Your task to perform on an android device: move an email to a new category in the gmail app Image 0: 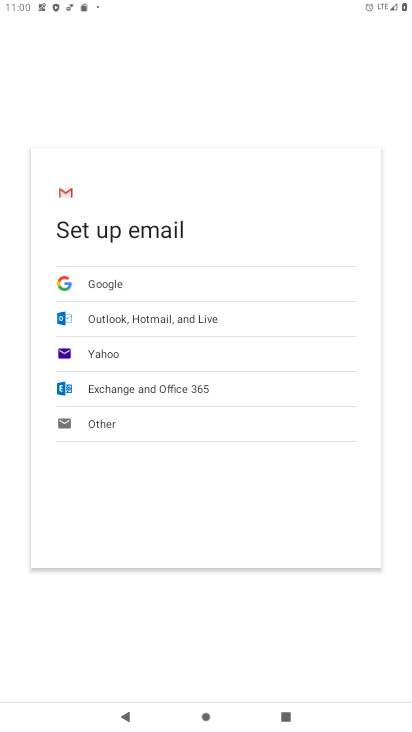
Step 0: press home button
Your task to perform on an android device: move an email to a new category in the gmail app Image 1: 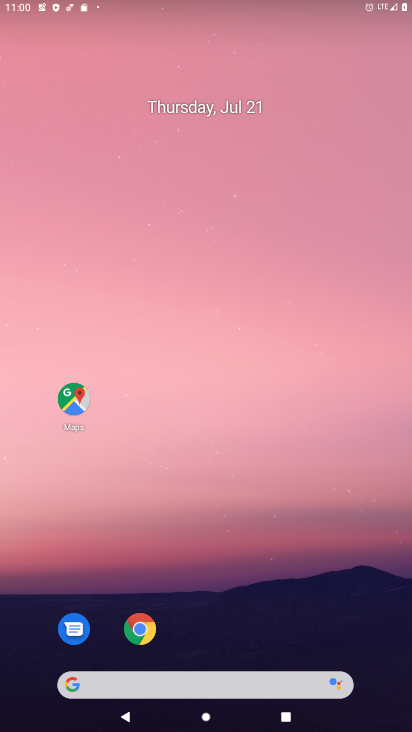
Step 1: drag from (319, 609) to (291, 118)
Your task to perform on an android device: move an email to a new category in the gmail app Image 2: 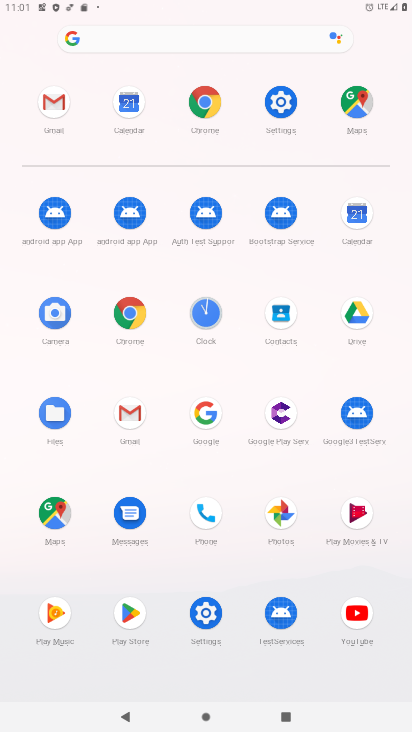
Step 2: click (149, 414)
Your task to perform on an android device: move an email to a new category in the gmail app Image 3: 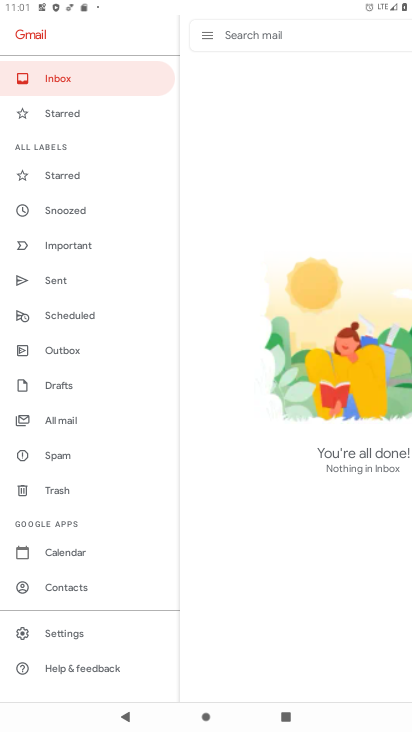
Step 3: task complete